Your task to perform on an android device: turn on translation in the chrome app Image 0: 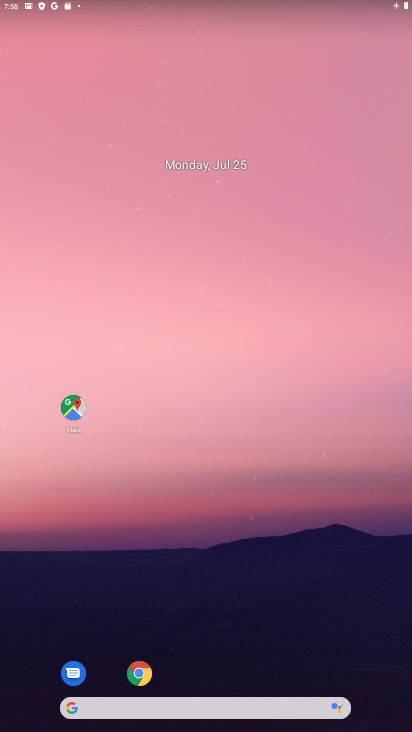
Step 0: drag from (199, 658) to (211, 93)
Your task to perform on an android device: turn on translation in the chrome app Image 1: 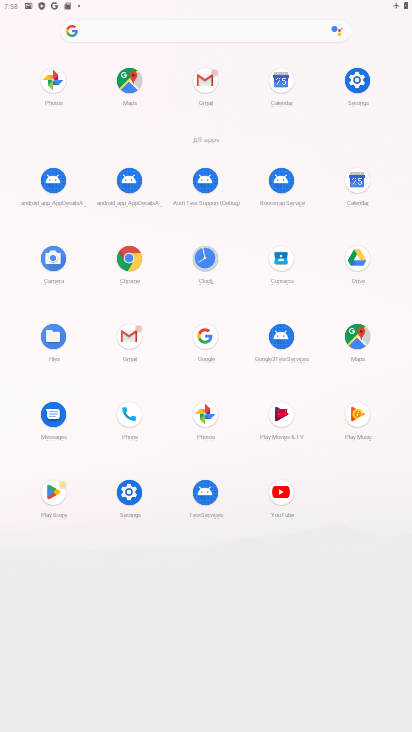
Step 1: click (127, 255)
Your task to perform on an android device: turn on translation in the chrome app Image 2: 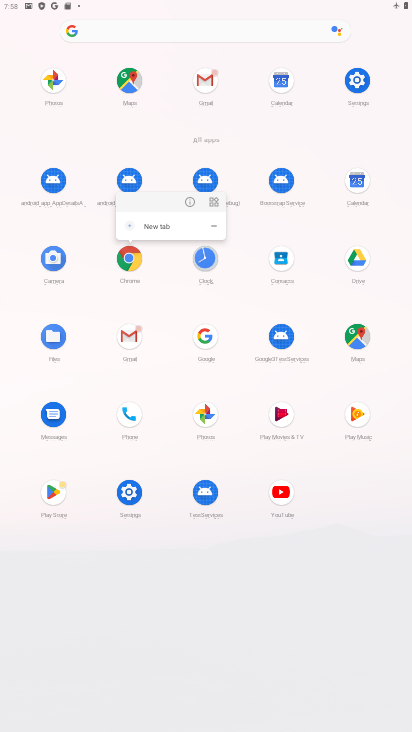
Step 2: click (186, 199)
Your task to perform on an android device: turn on translation in the chrome app Image 3: 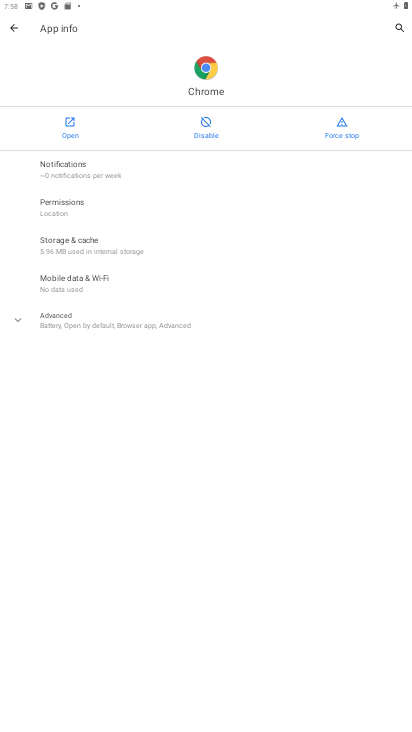
Step 3: click (64, 124)
Your task to perform on an android device: turn on translation in the chrome app Image 4: 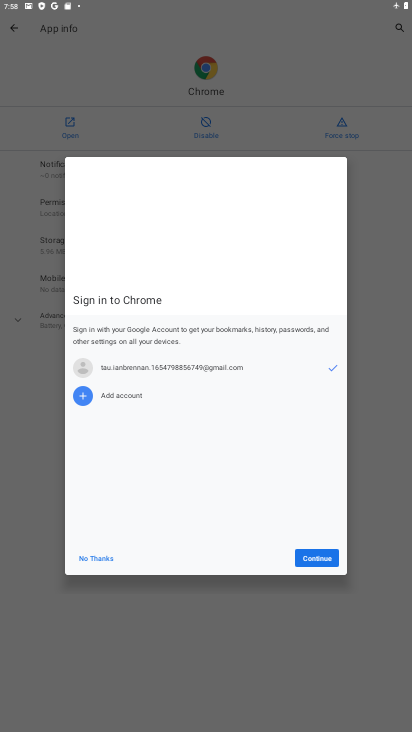
Step 4: click (312, 557)
Your task to perform on an android device: turn on translation in the chrome app Image 5: 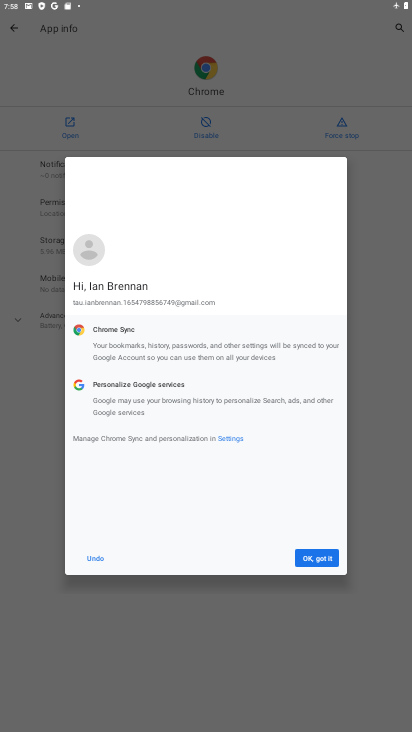
Step 5: click (316, 548)
Your task to perform on an android device: turn on translation in the chrome app Image 6: 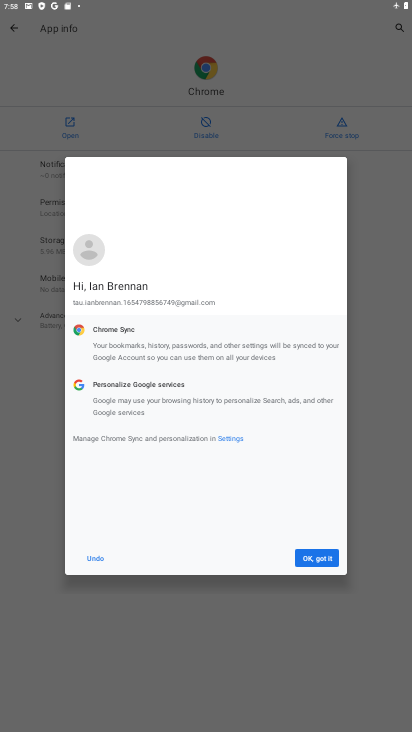
Step 6: click (318, 556)
Your task to perform on an android device: turn on translation in the chrome app Image 7: 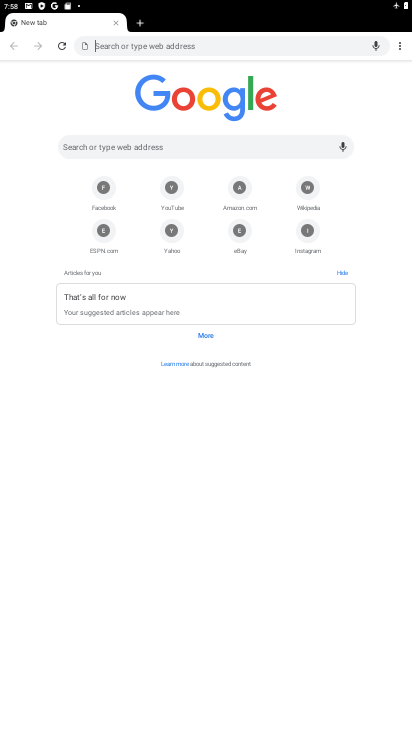
Step 7: drag from (399, 39) to (324, 203)
Your task to perform on an android device: turn on translation in the chrome app Image 8: 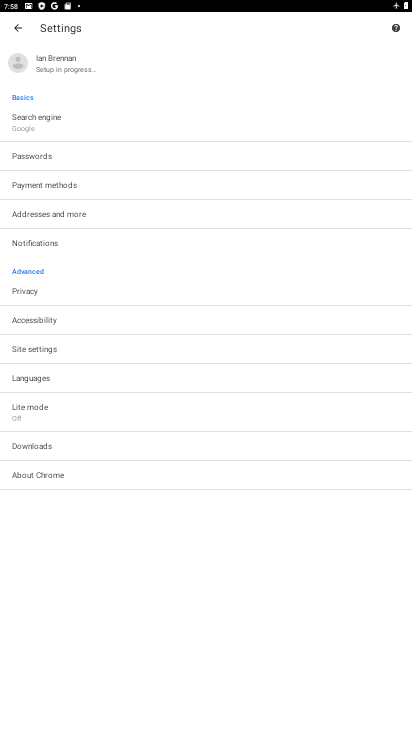
Step 8: click (61, 353)
Your task to perform on an android device: turn on translation in the chrome app Image 9: 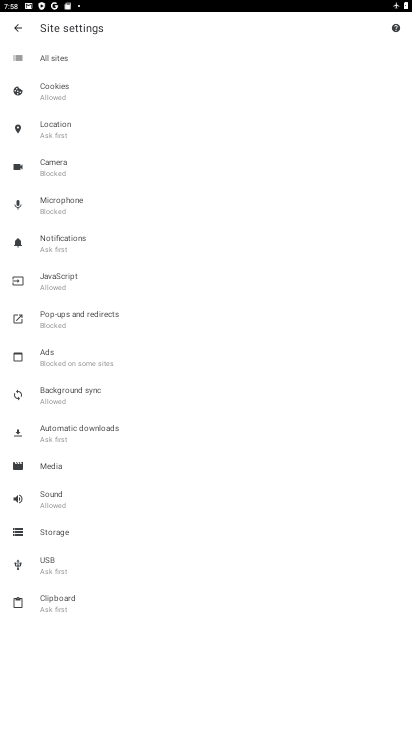
Step 9: click (10, 34)
Your task to perform on an android device: turn on translation in the chrome app Image 10: 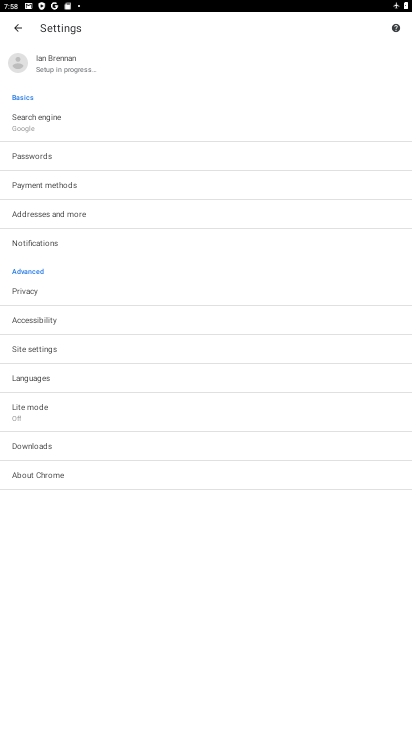
Step 10: click (44, 381)
Your task to perform on an android device: turn on translation in the chrome app Image 11: 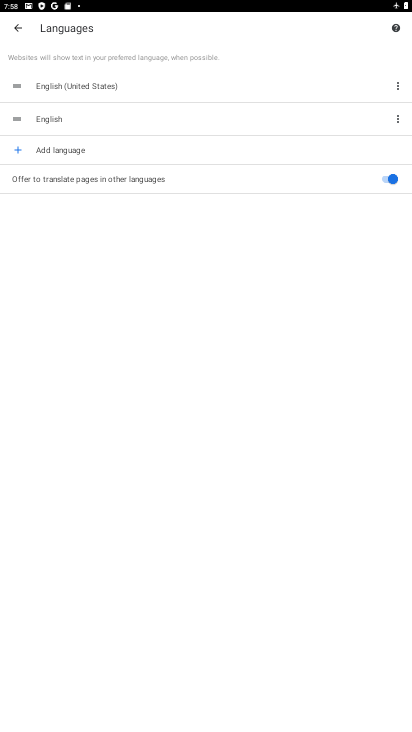
Step 11: click (380, 176)
Your task to perform on an android device: turn on translation in the chrome app Image 12: 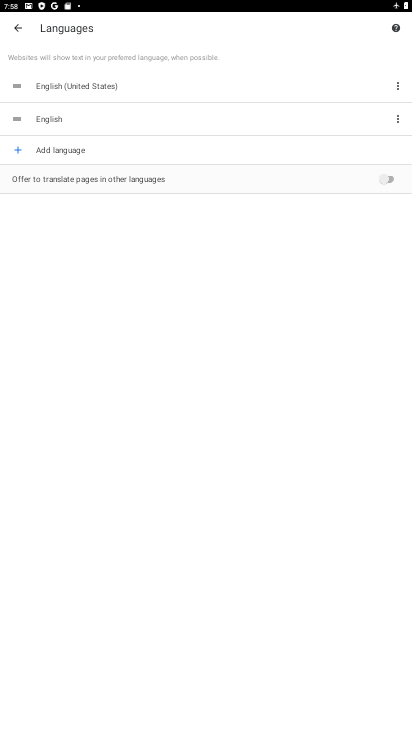
Step 12: click (378, 176)
Your task to perform on an android device: turn on translation in the chrome app Image 13: 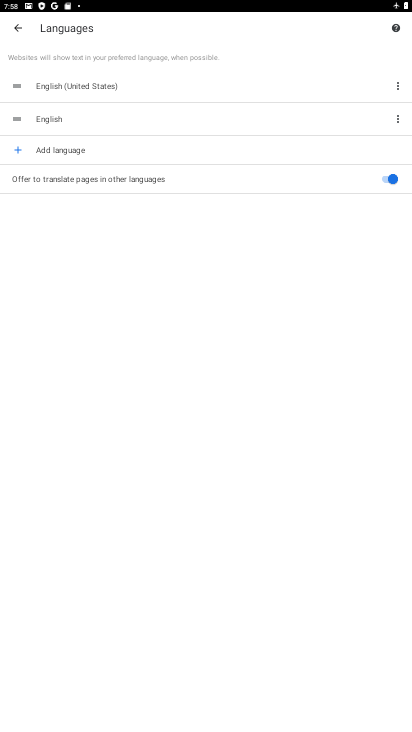
Step 13: task complete